Your task to perform on an android device: Open Chrome and go to settings Image 0: 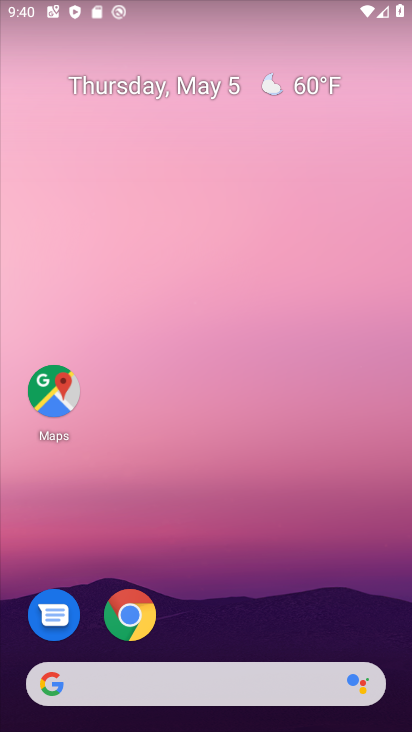
Step 0: click (136, 617)
Your task to perform on an android device: Open Chrome and go to settings Image 1: 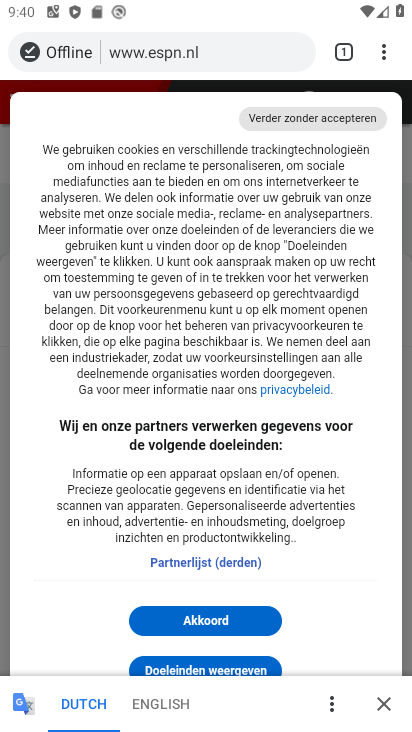
Step 1: click (379, 65)
Your task to perform on an android device: Open Chrome and go to settings Image 2: 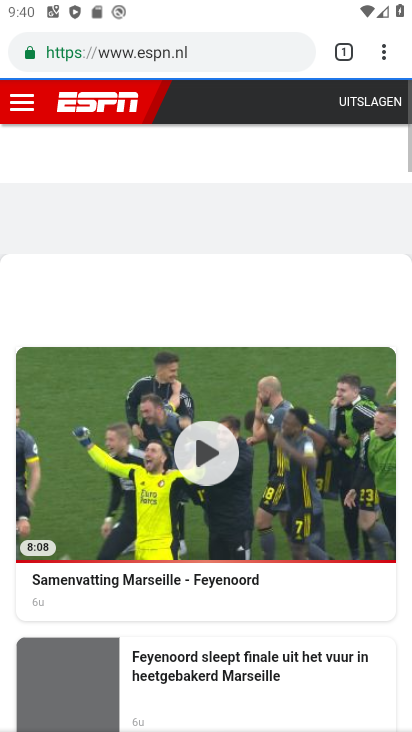
Step 2: click (377, 48)
Your task to perform on an android device: Open Chrome and go to settings Image 3: 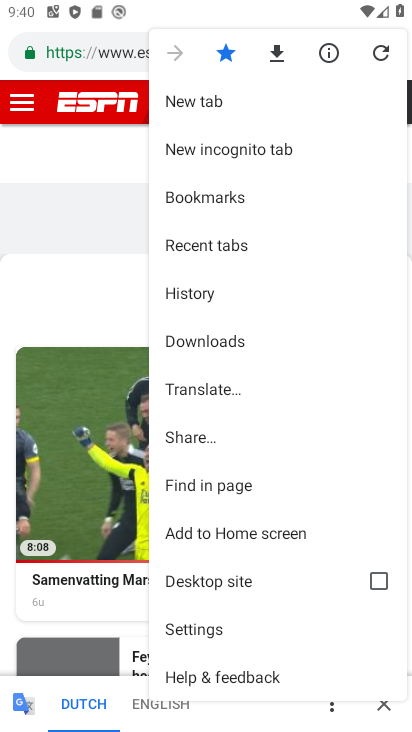
Step 3: click (213, 615)
Your task to perform on an android device: Open Chrome and go to settings Image 4: 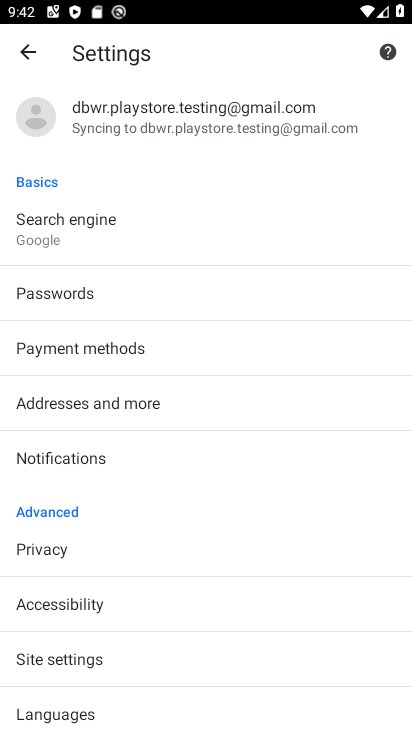
Step 4: task complete